Your task to perform on an android device: check out phone information Image 0: 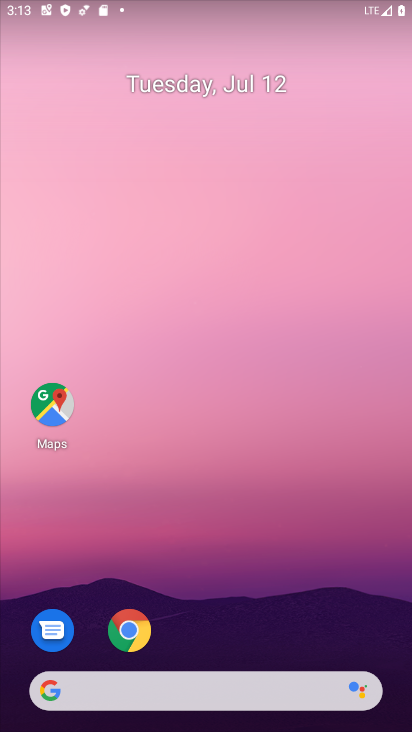
Step 0: drag from (171, 698) to (198, 77)
Your task to perform on an android device: check out phone information Image 1: 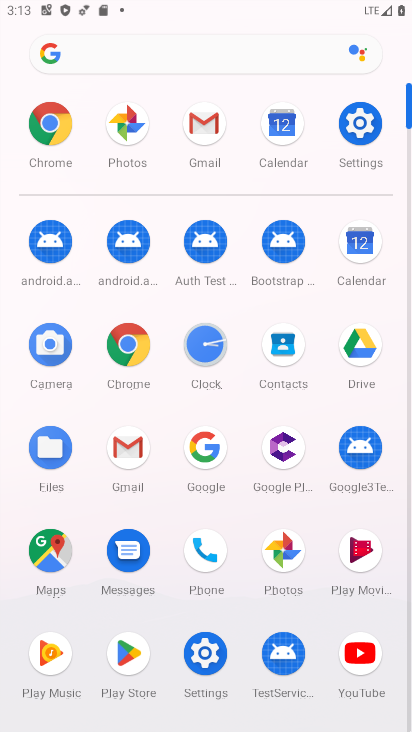
Step 1: click (349, 121)
Your task to perform on an android device: check out phone information Image 2: 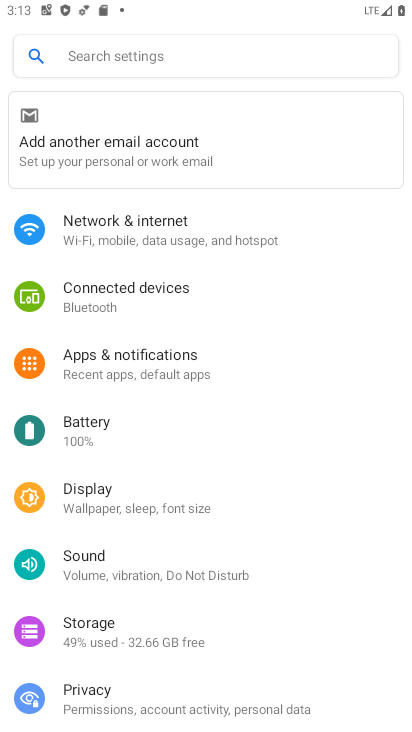
Step 2: drag from (215, 601) to (220, 66)
Your task to perform on an android device: check out phone information Image 3: 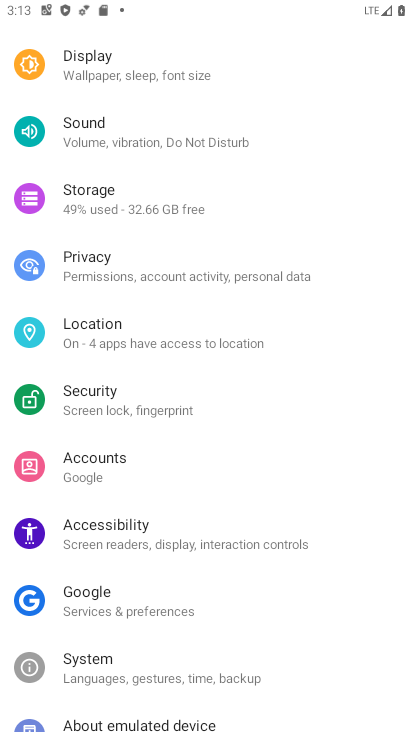
Step 3: drag from (185, 631) to (206, 142)
Your task to perform on an android device: check out phone information Image 4: 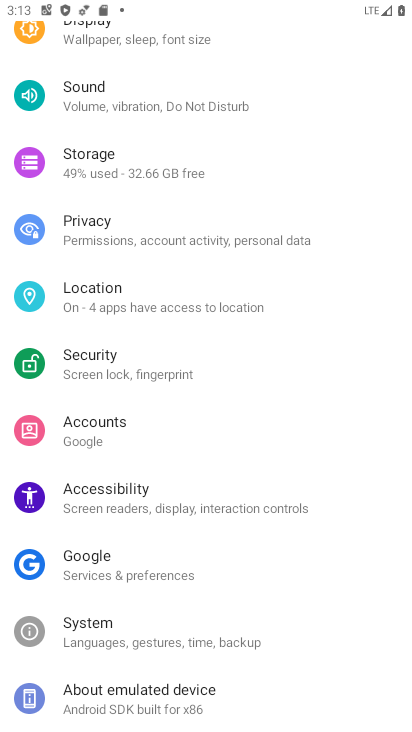
Step 4: click (190, 702)
Your task to perform on an android device: check out phone information Image 5: 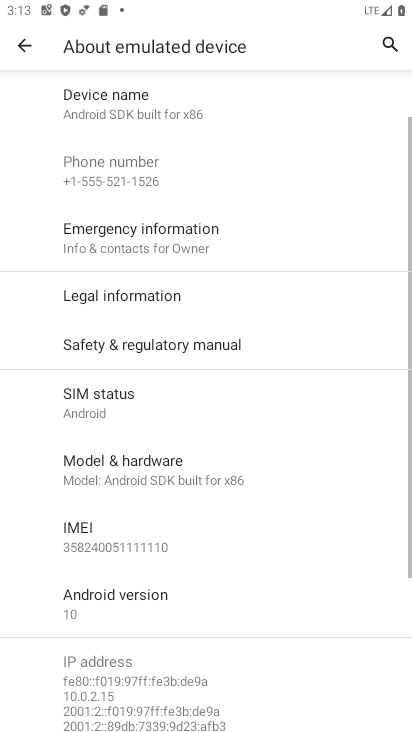
Step 5: task complete